Your task to perform on an android device: install app "Gboard" Image 0: 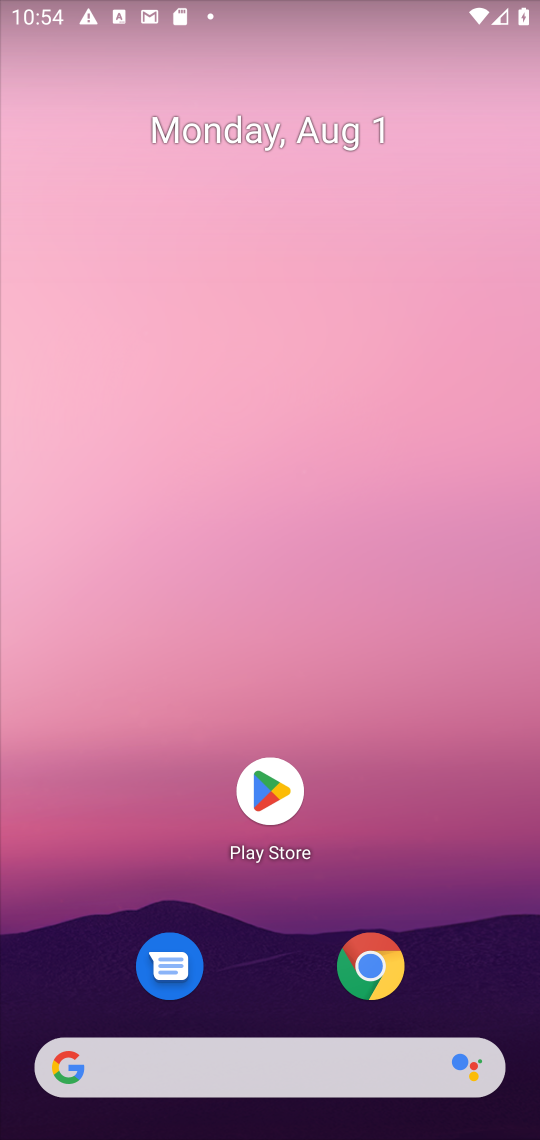
Step 0: click (238, 783)
Your task to perform on an android device: install app "Gboard" Image 1: 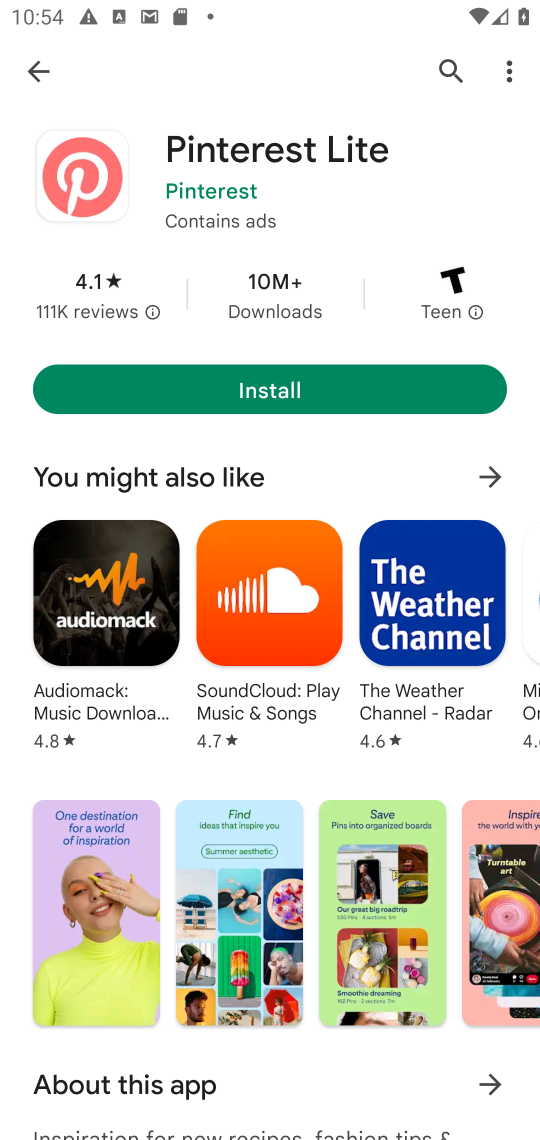
Step 1: click (437, 67)
Your task to perform on an android device: install app "Gboard" Image 2: 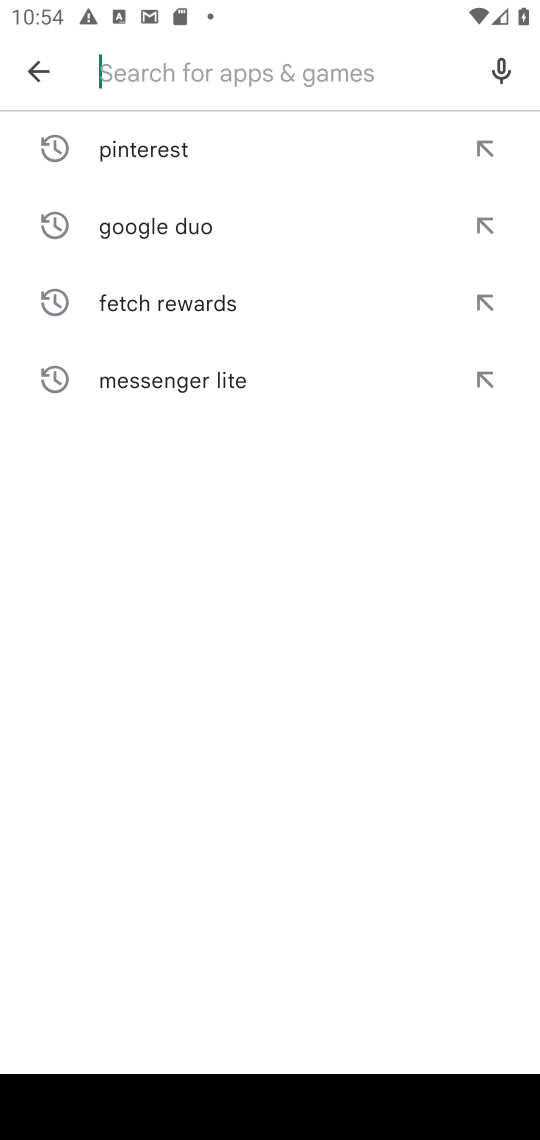
Step 2: type "Gboard"
Your task to perform on an android device: install app "Gboard" Image 3: 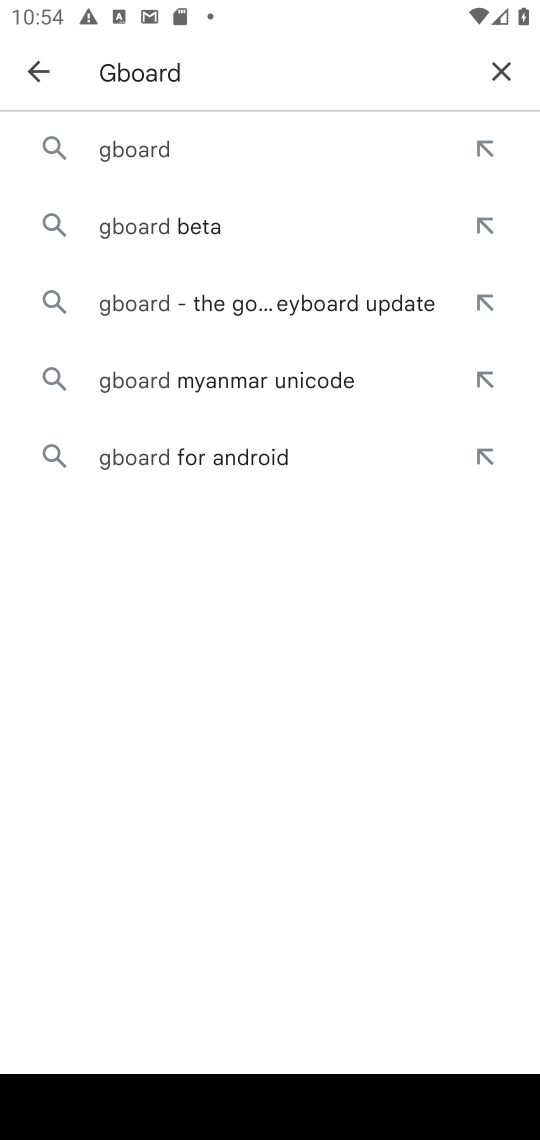
Step 3: click (140, 146)
Your task to perform on an android device: install app "Gboard" Image 4: 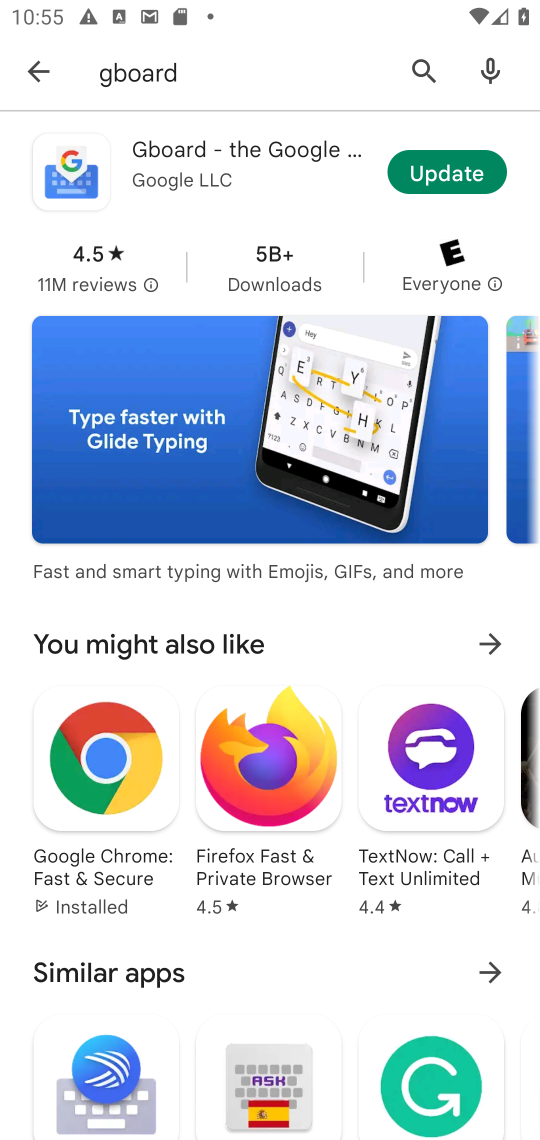
Step 4: click (464, 161)
Your task to perform on an android device: install app "Gboard" Image 5: 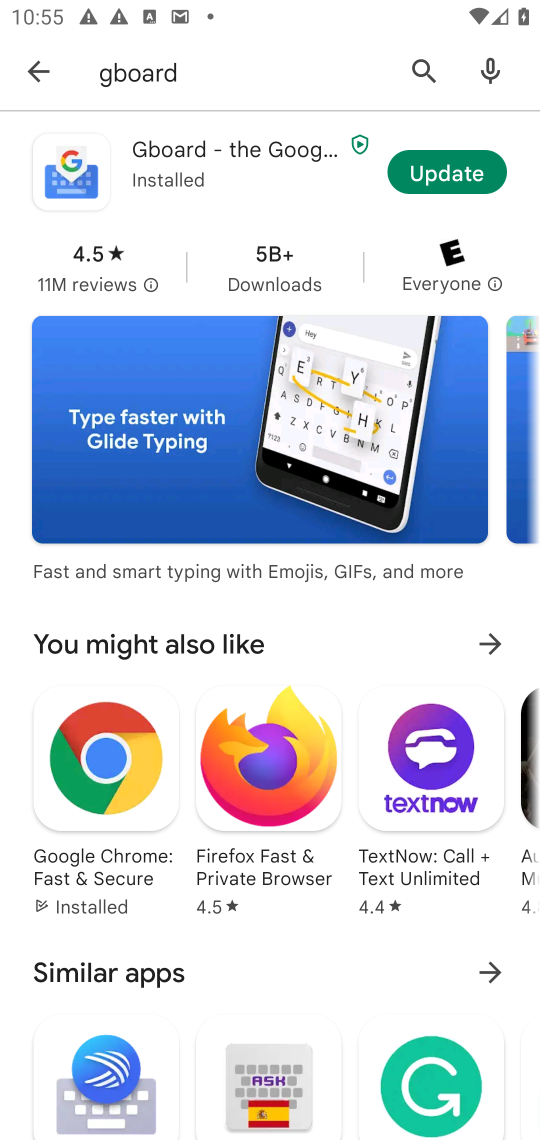
Step 5: task complete